Your task to perform on an android device: Open ESPN.com Image 0: 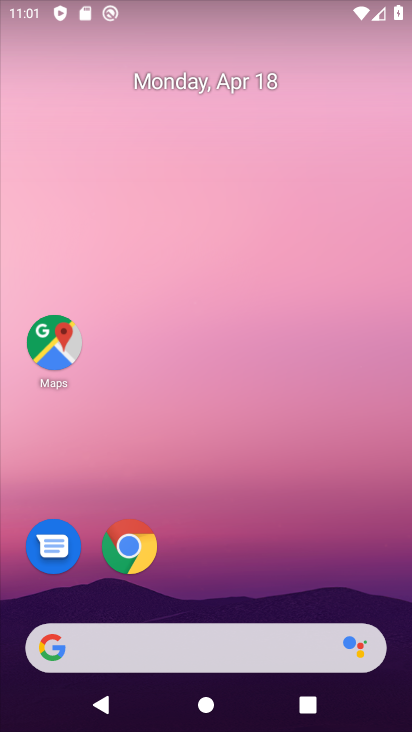
Step 0: drag from (381, 589) to (386, 83)
Your task to perform on an android device: Open ESPN.com Image 1: 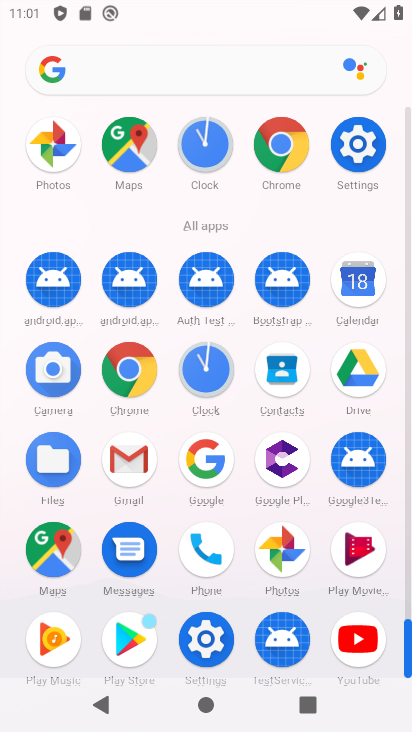
Step 1: click (132, 378)
Your task to perform on an android device: Open ESPN.com Image 2: 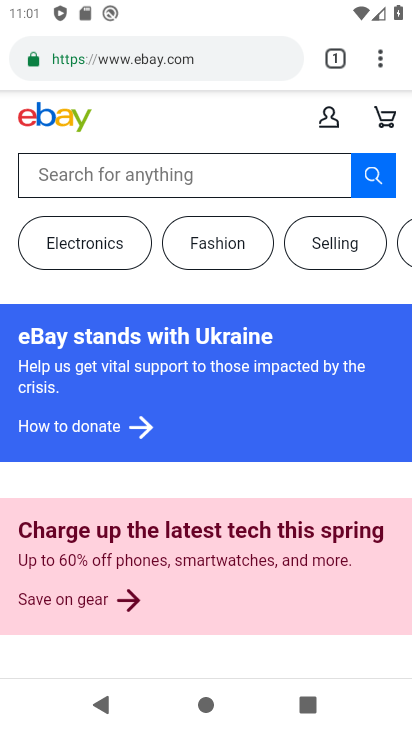
Step 2: press back button
Your task to perform on an android device: Open ESPN.com Image 3: 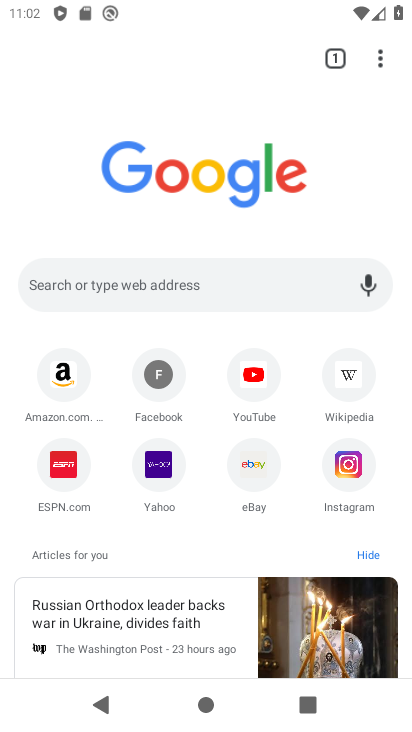
Step 3: click (63, 466)
Your task to perform on an android device: Open ESPN.com Image 4: 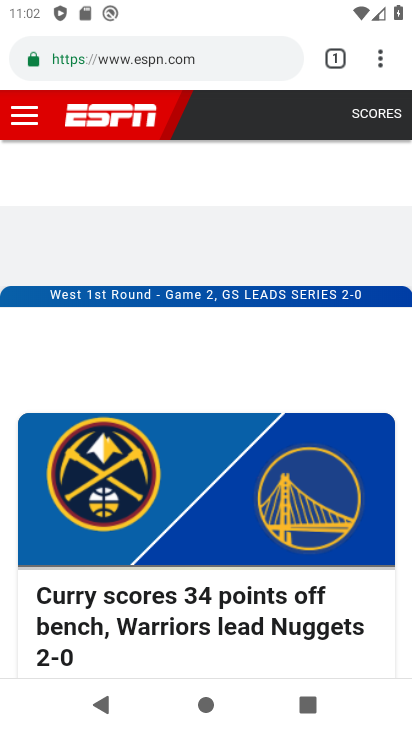
Step 4: task complete